Your task to perform on an android device: Search for seafood restaurants on Google Maps Image 0: 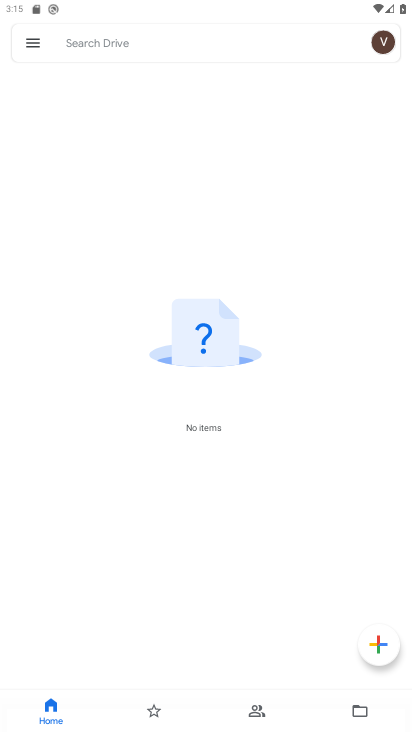
Step 0: press home button
Your task to perform on an android device: Search for seafood restaurants on Google Maps Image 1: 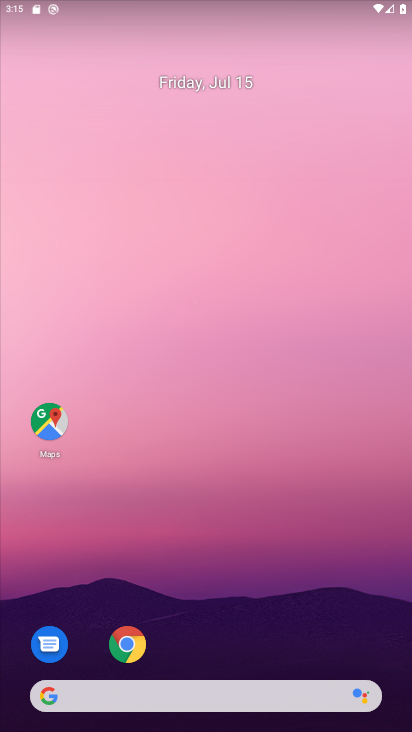
Step 1: click (26, 401)
Your task to perform on an android device: Search for seafood restaurants on Google Maps Image 2: 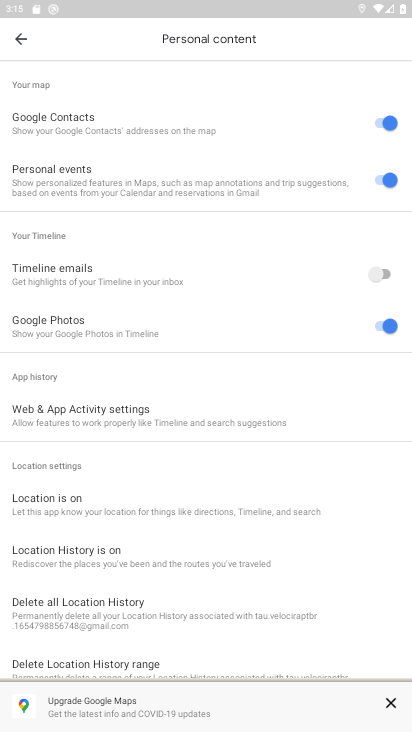
Step 2: click (32, 35)
Your task to perform on an android device: Search for seafood restaurants on Google Maps Image 3: 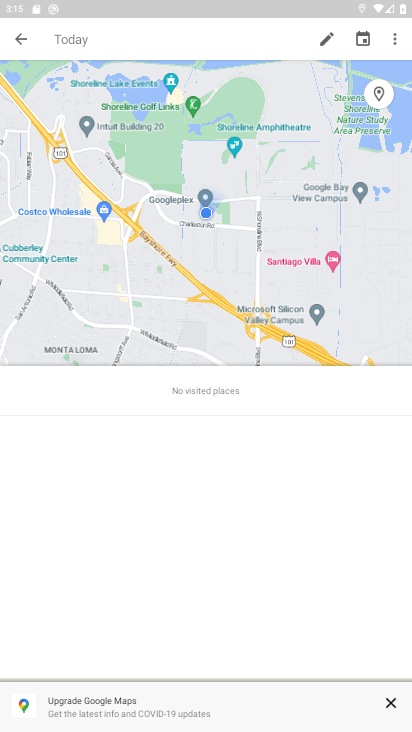
Step 3: click (32, 35)
Your task to perform on an android device: Search for seafood restaurants on Google Maps Image 4: 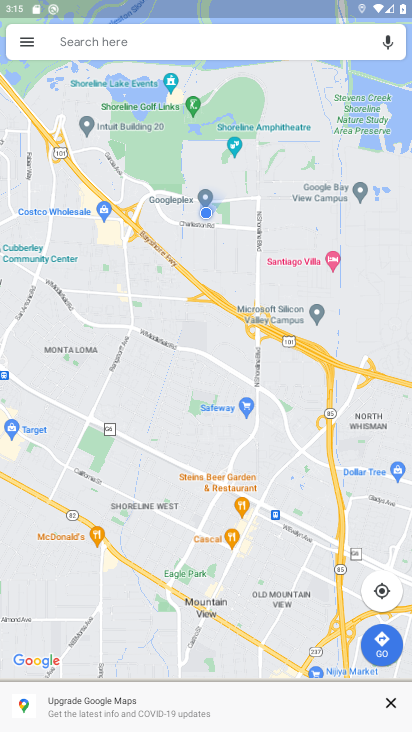
Step 4: click (108, 28)
Your task to perform on an android device: Search for seafood restaurants on Google Maps Image 5: 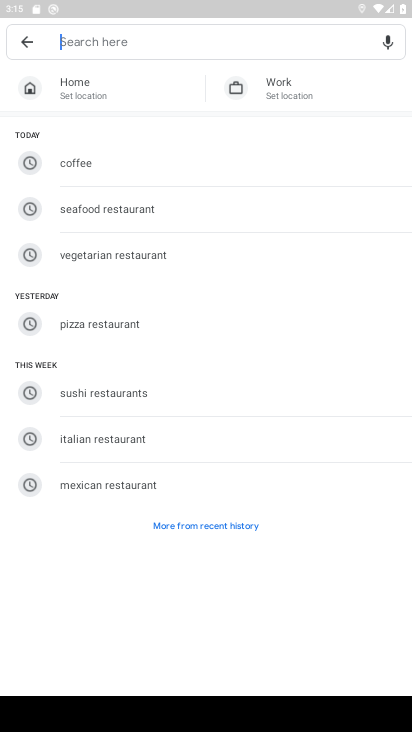
Step 5: click (281, 212)
Your task to perform on an android device: Search for seafood restaurants on Google Maps Image 6: 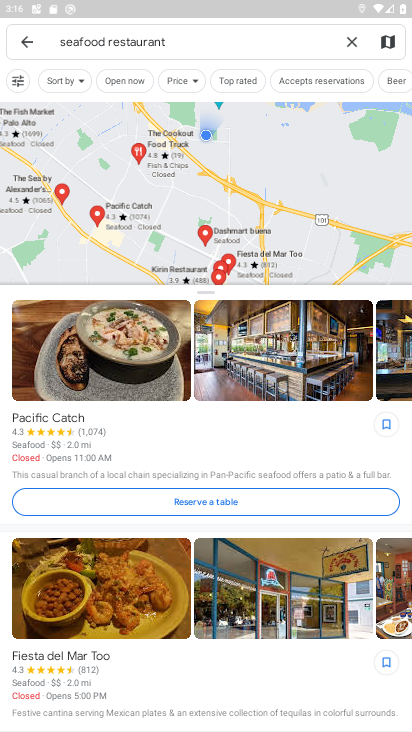
Step 6: task complete